Your task to perform on an android device: Open the stopwatch Image 0: 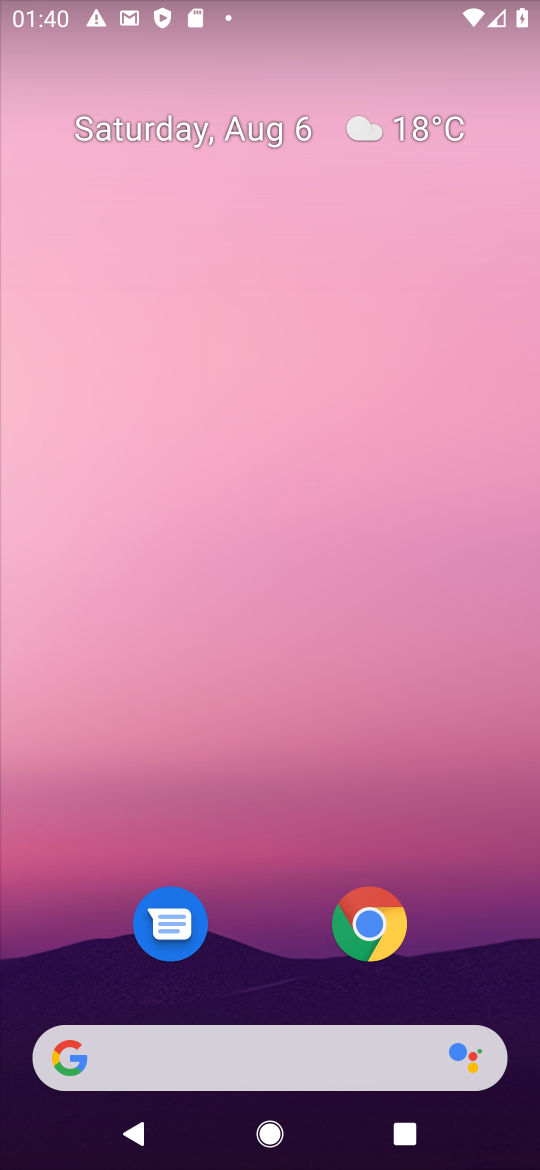
Step 0: drag from (297, 1036) to (328, 122)
Your task to perform on an android device: Open the stopwatch Image 1: 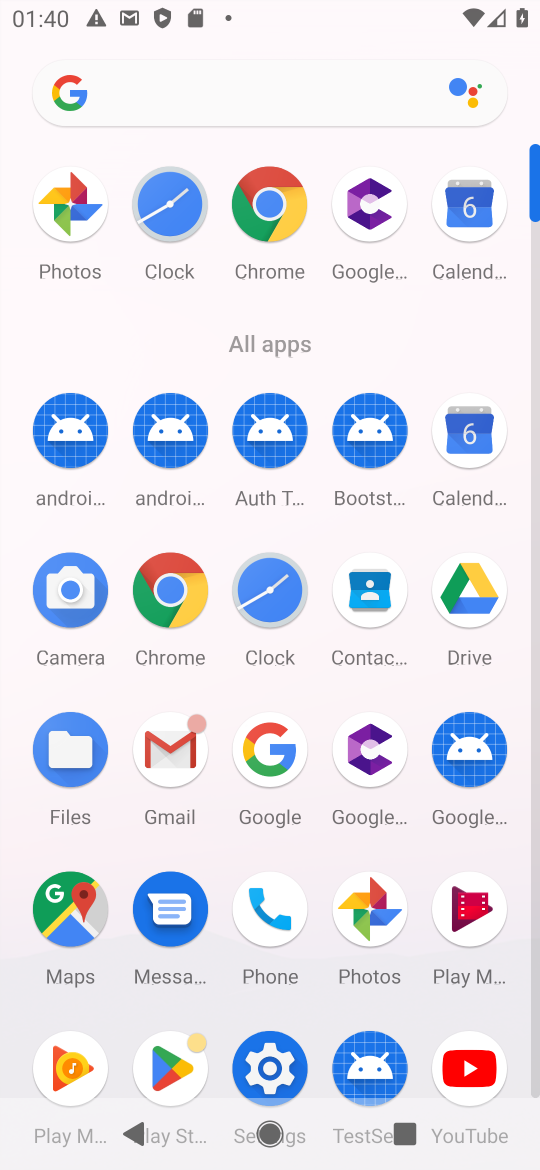
Step 1: click (265, 612)
Your task to perform on an android device: Open the stopwatch Image 2: 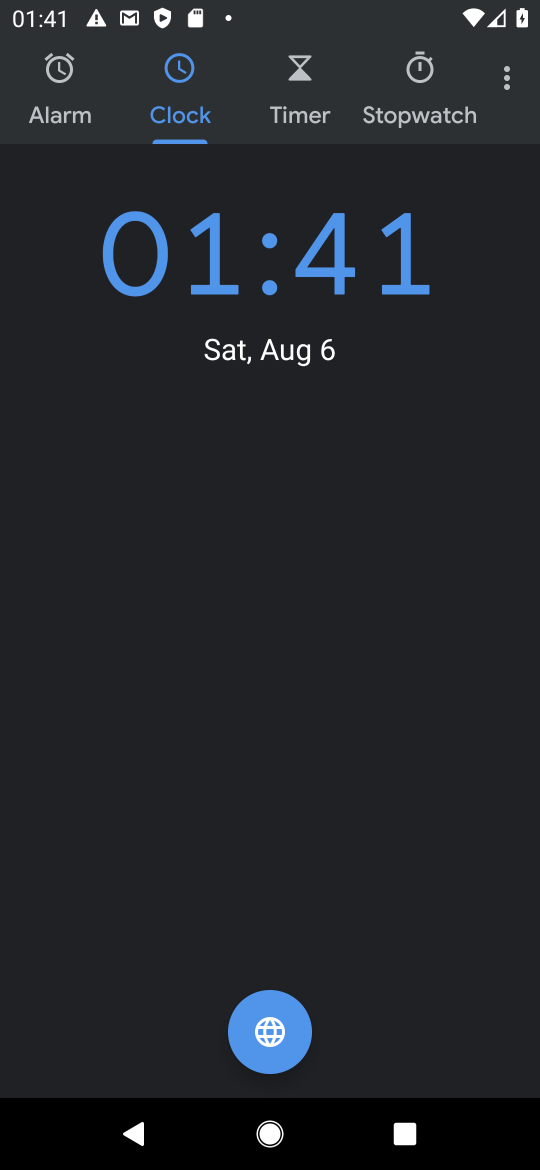
Step 2: click (430, 93)
Your task to perform on an android device: Open the stopwatch Image 3: 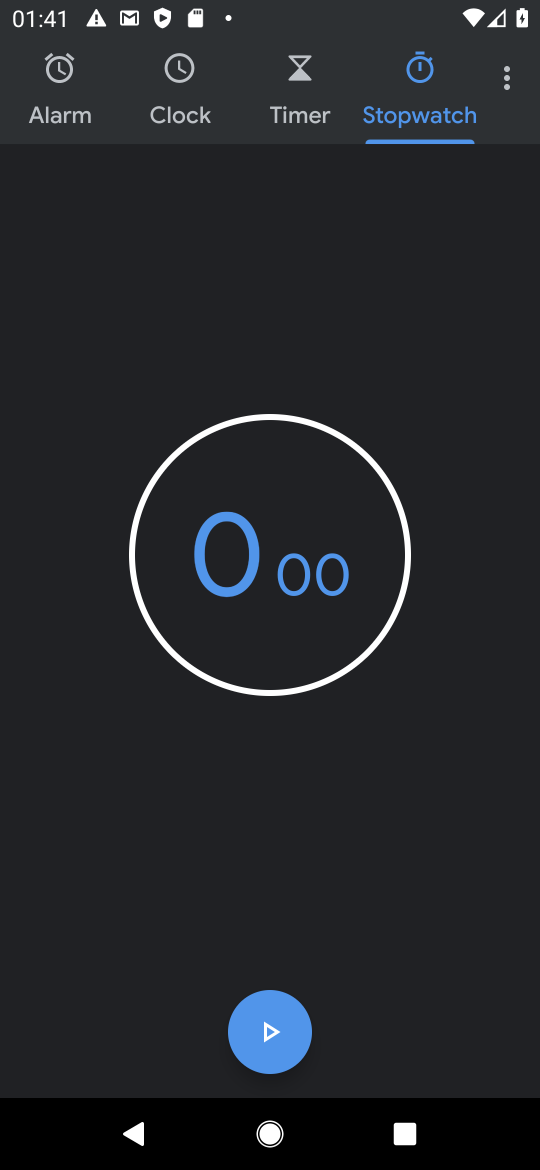
Step 3: click (290, 1017)
Your task to perform on an android device: Open the stopwatch Image 4: 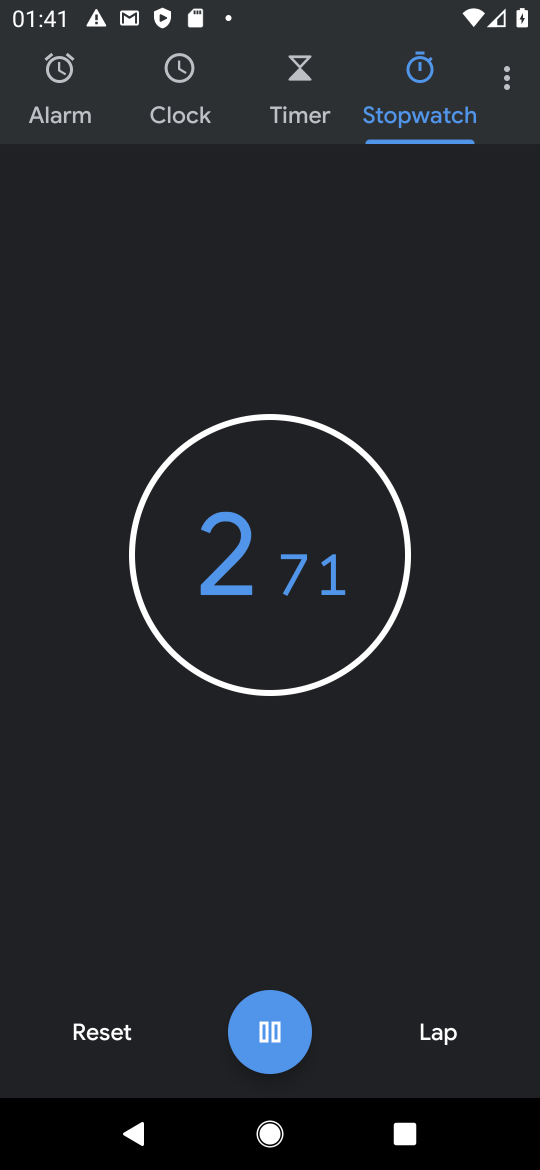
Step 4: task complete